Your task to perform on an android device: open a bookmark in the chrome app Image 0: 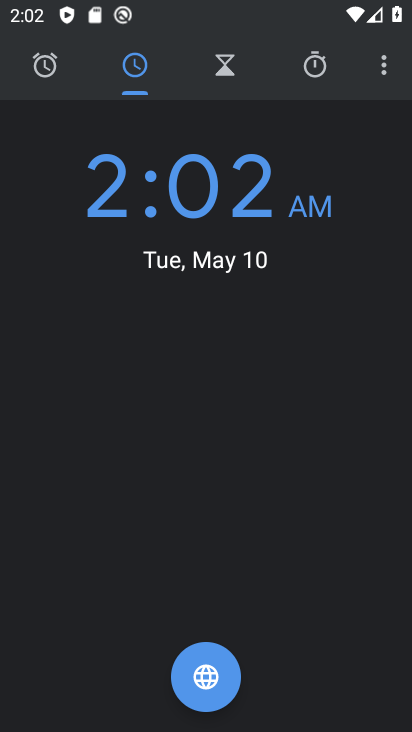
Step 0: press home button
Your task to perform on an android device: open a bookmark in the chrome app Image 1: 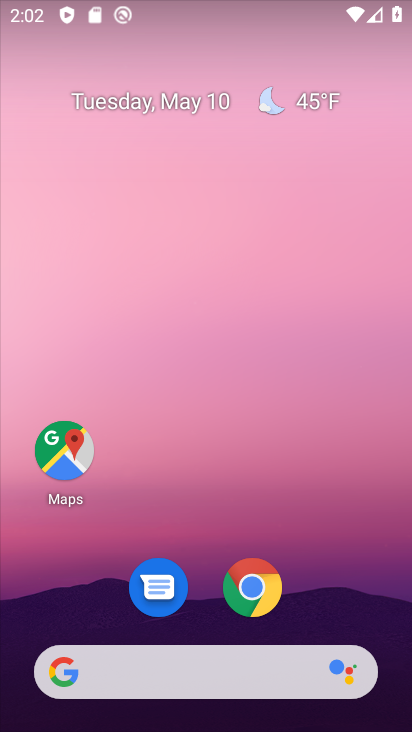
Step 1: drag from (375, 624) to (367, 145)
Your task to perform on an android device: open a bookmark in the chrome app Image 2: 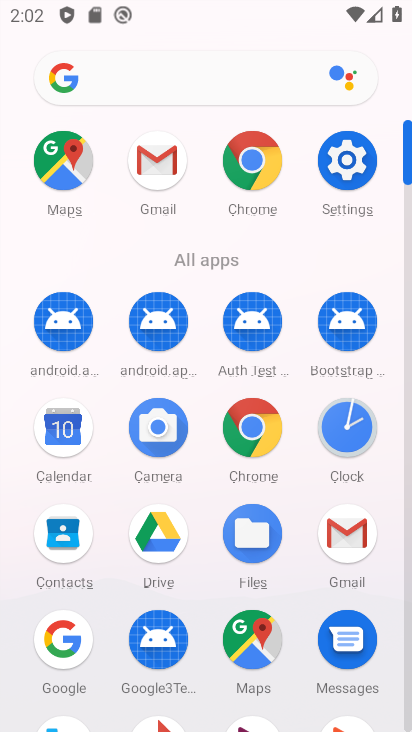
Step 2: click (254, 435)
Your task to perform on an android device: open a bookmark in the chrome app Image 3: 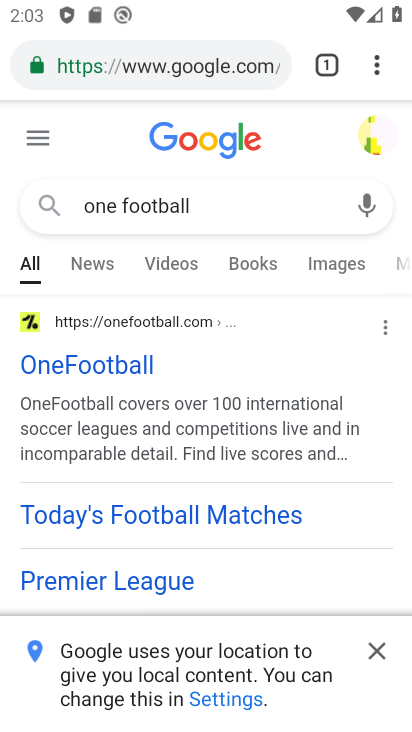
Step 3: task complete